Your task to perform on an android device: open wifi settings Image 0: 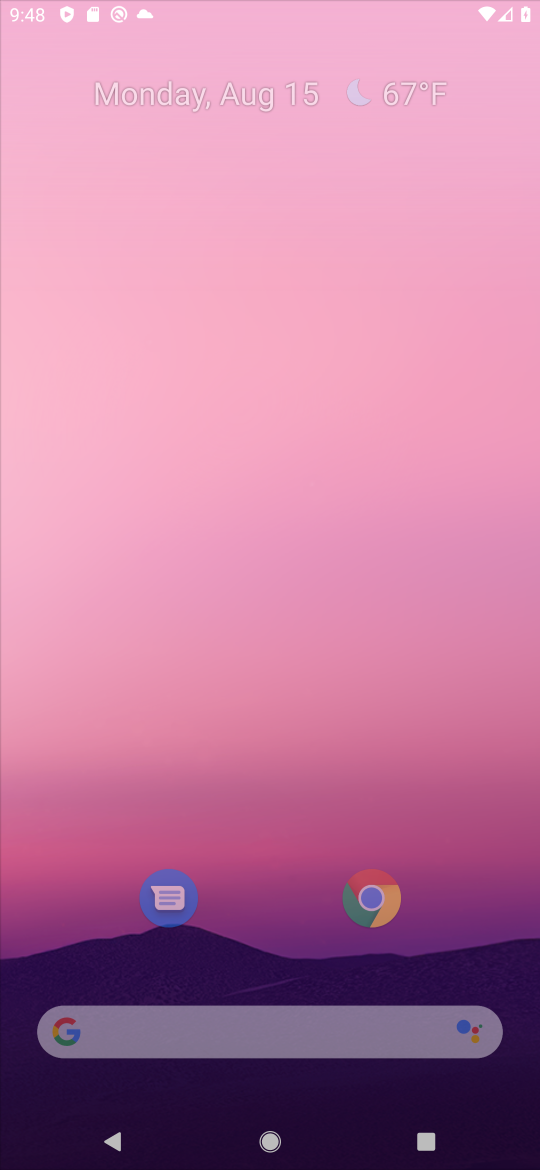
Step 0: press home button
Your task to perform on an android device: open wifi settings Image 1: 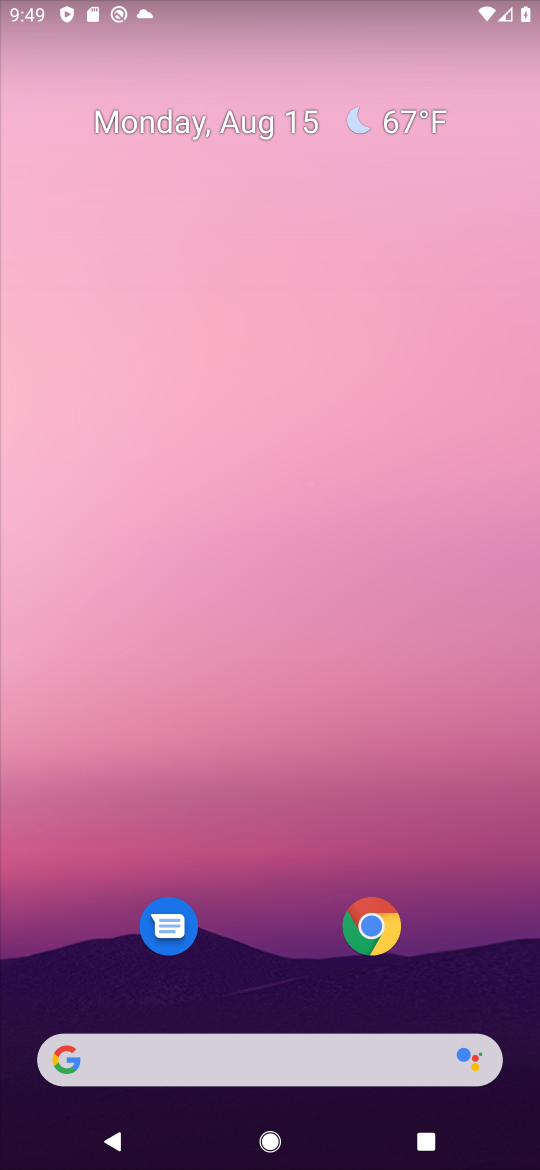
Step 1: drag from (291, 987) to (251, 54)
Your task to perform on an android device: open wifi settings Image 2: 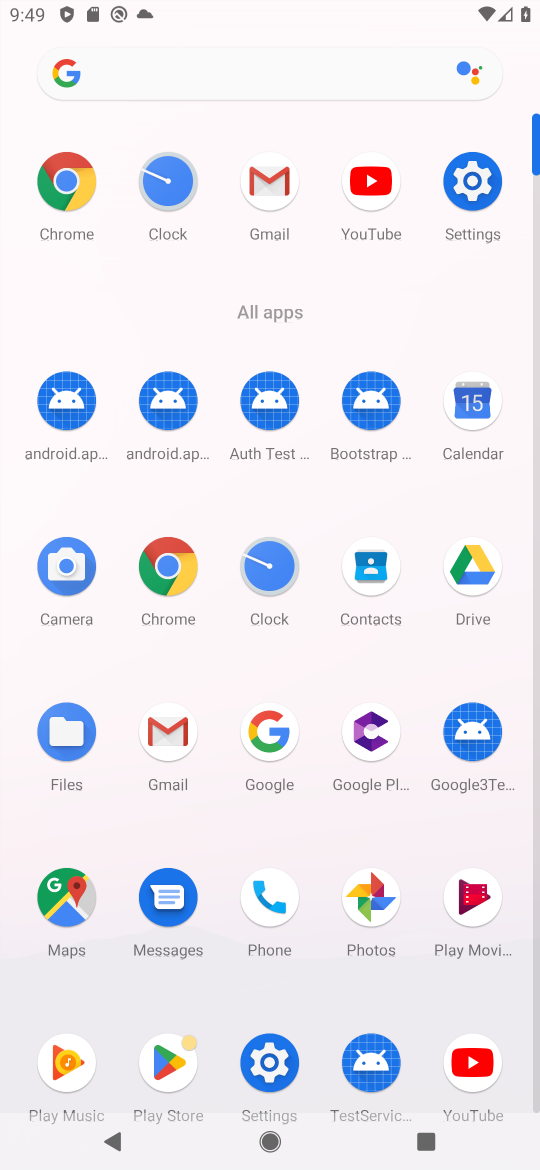
Step 2: drag from (496, 8) to (216, 935)
Your task to perform on an android device: open wifi settings Image 3: 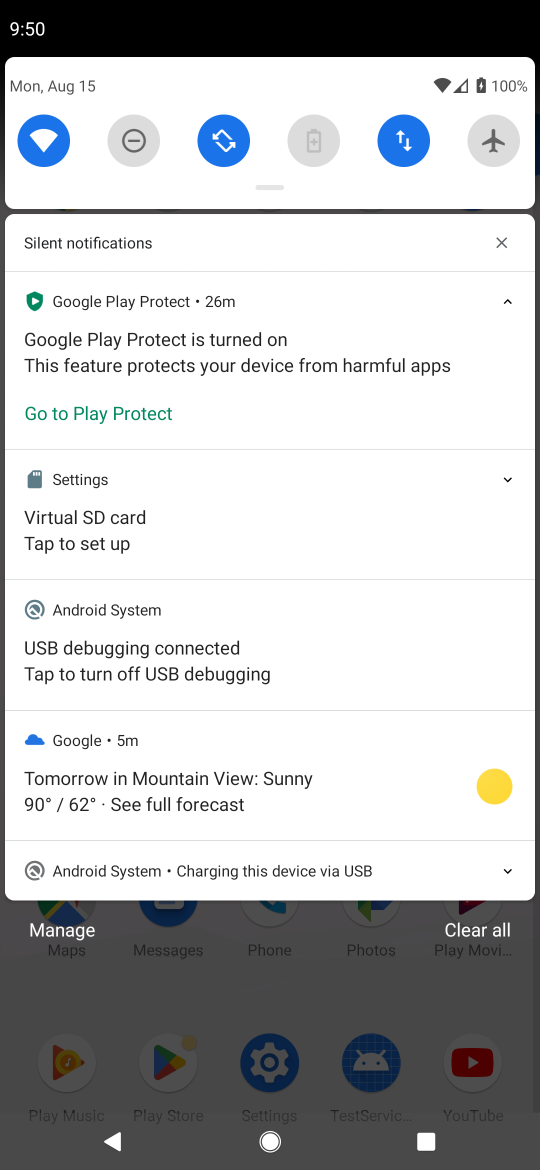
Step 3: click (37, 146)
Your task to perform on an android device: open wifi settings Image 4: 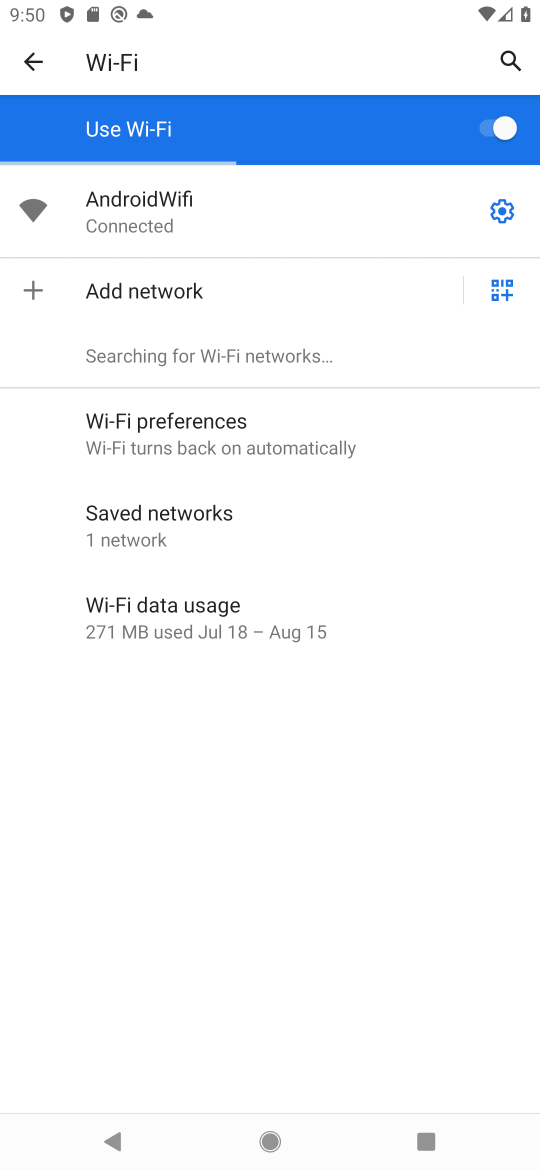
Step 4: task complete